Your task to perform on an android device: star an email in the gmail app Image 0: 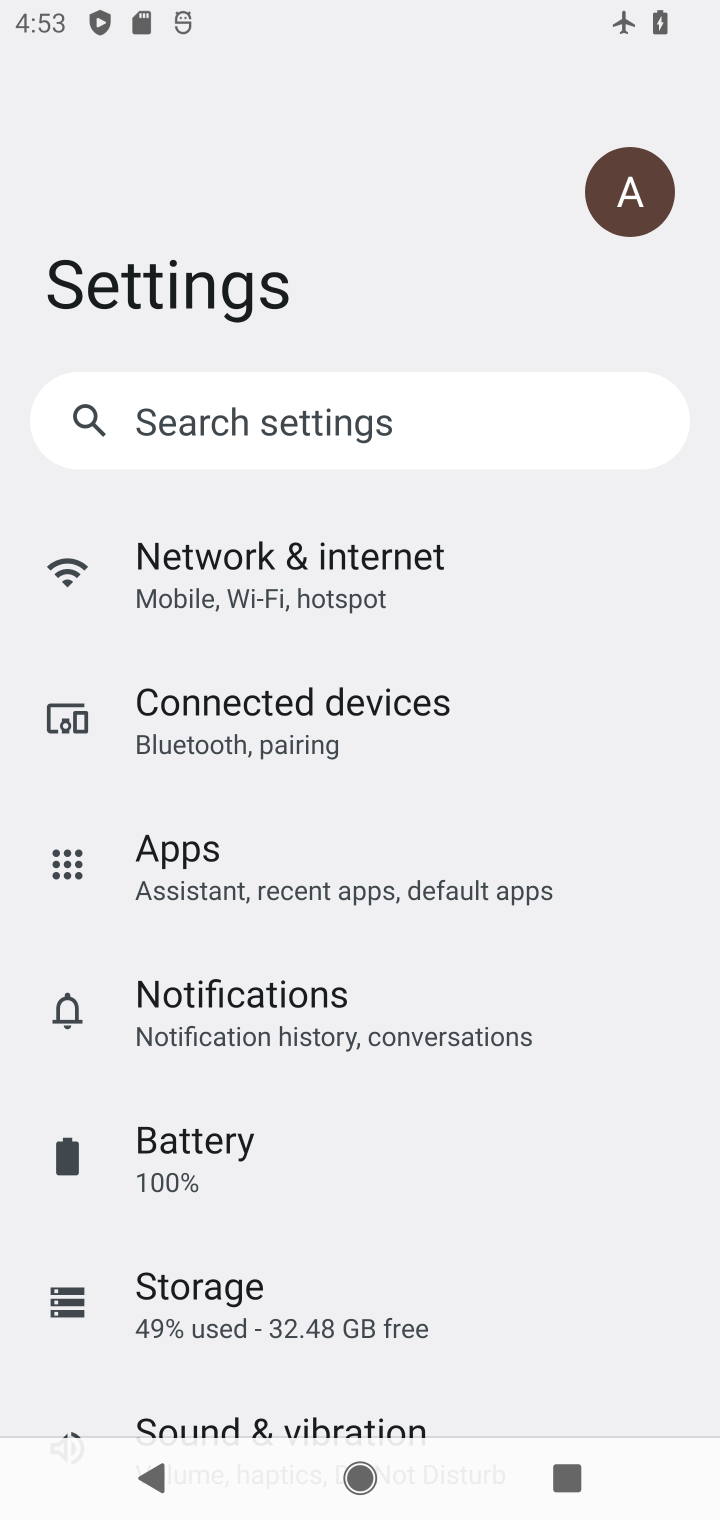
Step 0: press home button
Your task to perform on an android device: star an email in the gmail app Image 1: 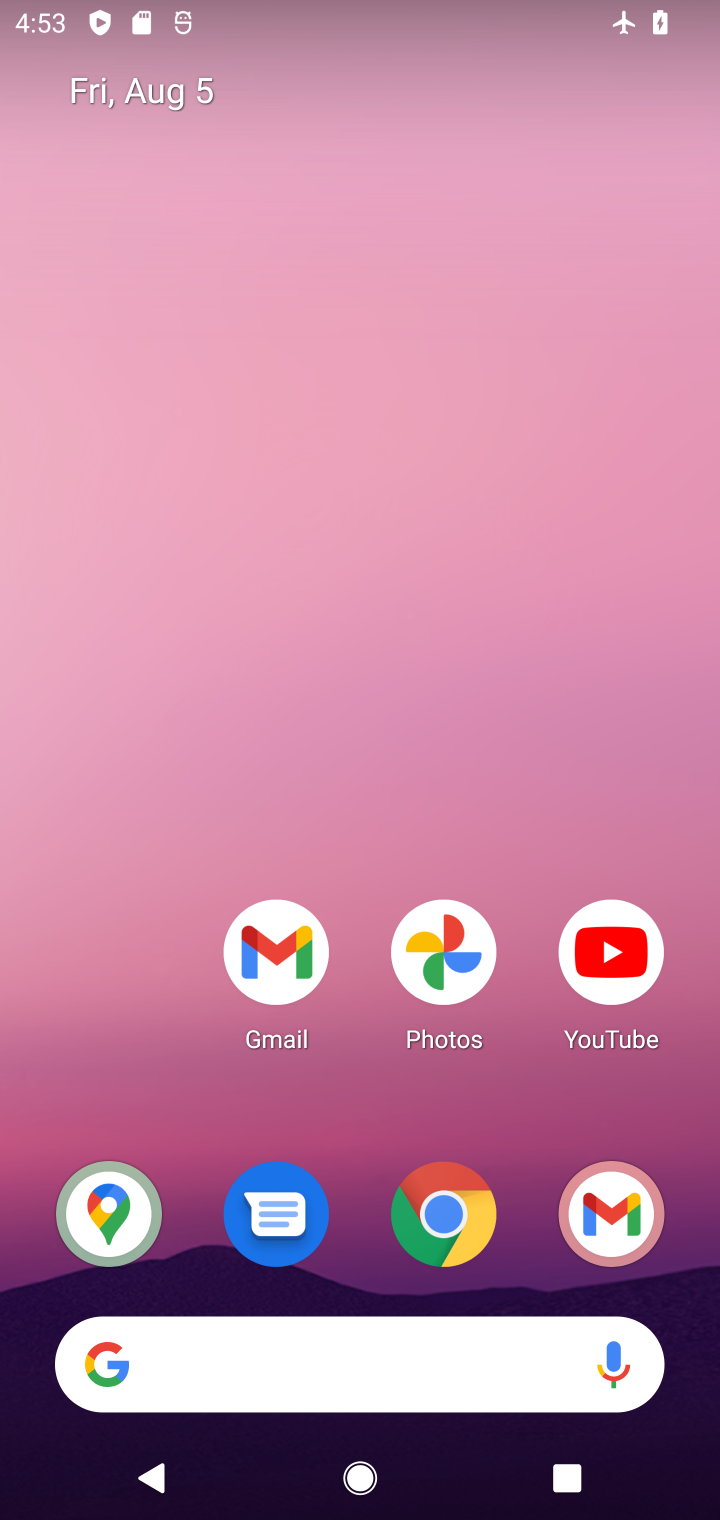
Step 1: click (630, 1187)
Your task to perform on an android device: star an email in the gmail app Image 2: 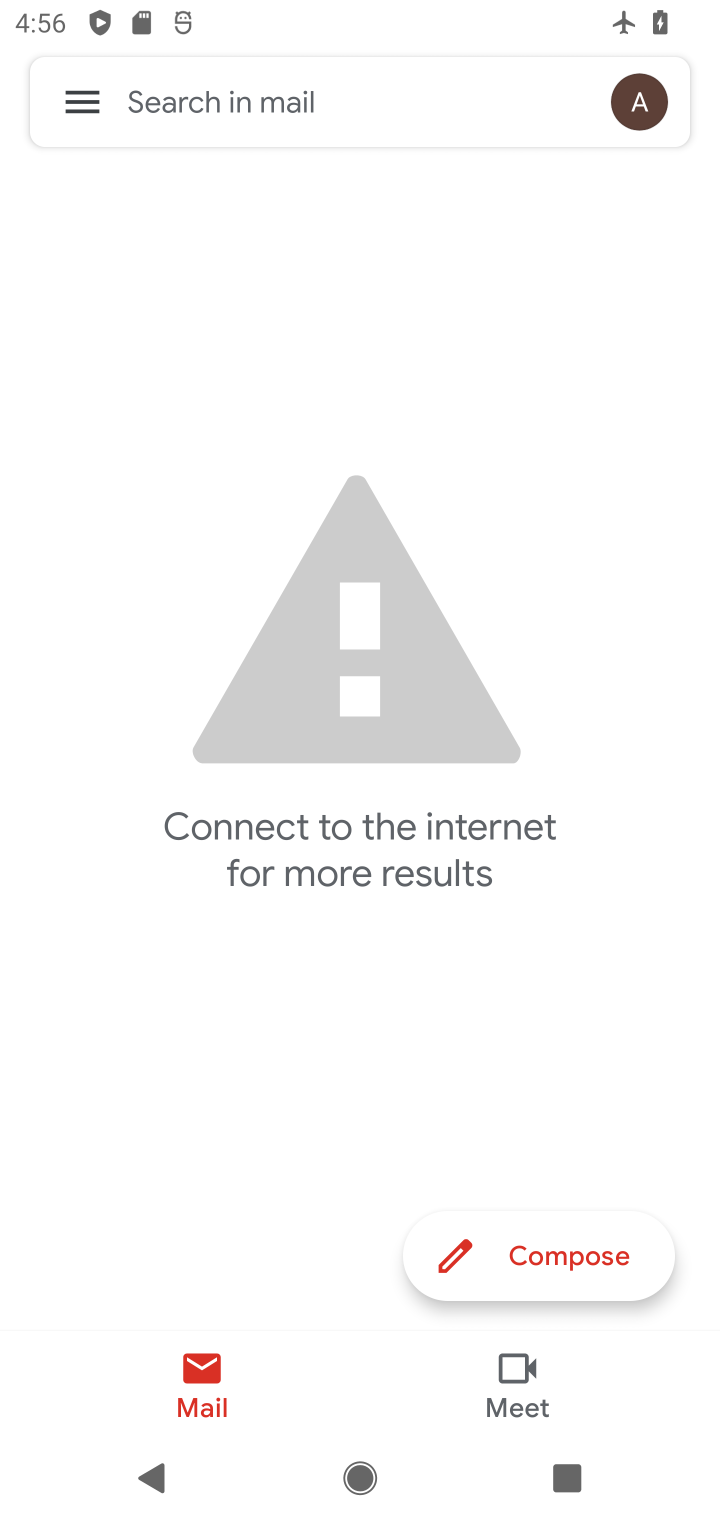
Step 2: task complete